Your task to perform on an android device: set the stopwatch Image 0: 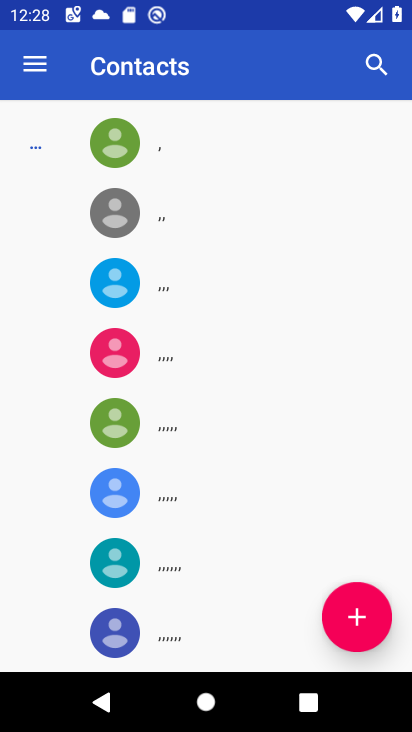
Step 0: press home button
Your task to perform on an android device: set the stopwatch Image 1: 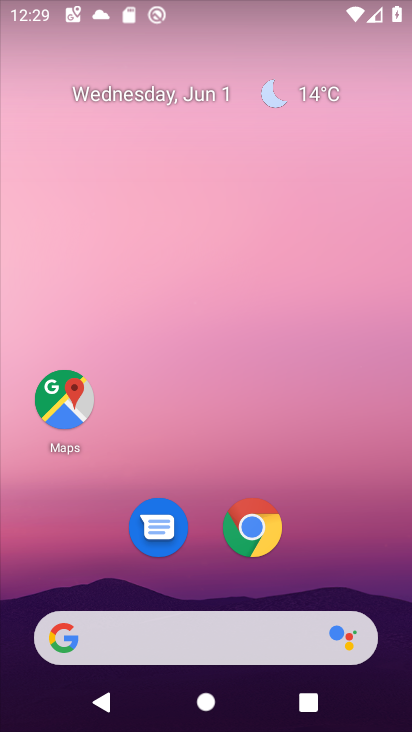
Step 1: drag from (343, 602) to (331, 60)
Your task to perform on an android device: set the stopwatch Image 2: 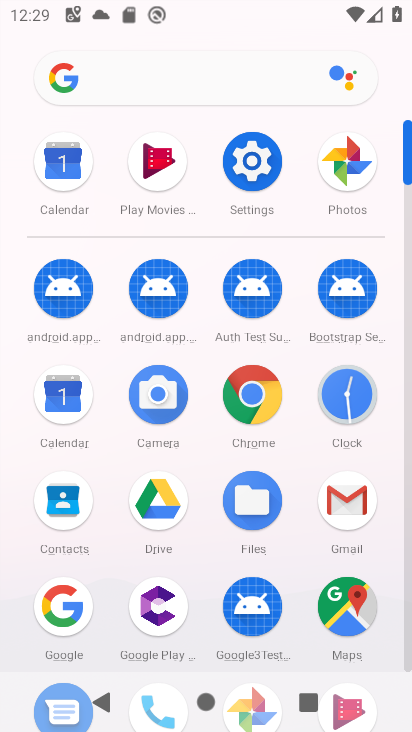
Step 2: click (347, 400)
Your task to perform on an android device: set the stopwatch Image 3: 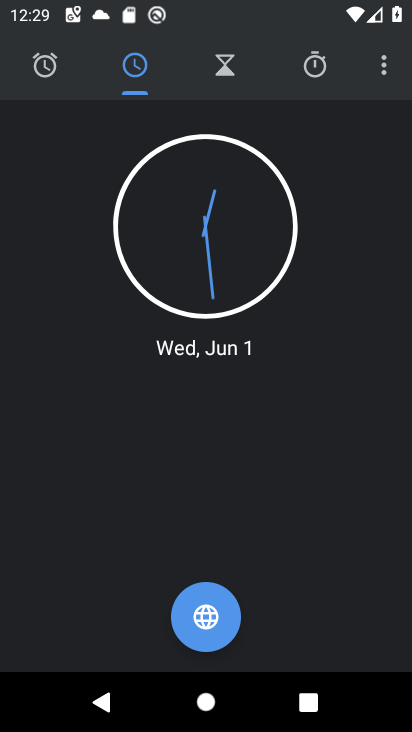
Step 3: click (320, 66)
Your task to perform on an android device: set the stopwatch Image 4: 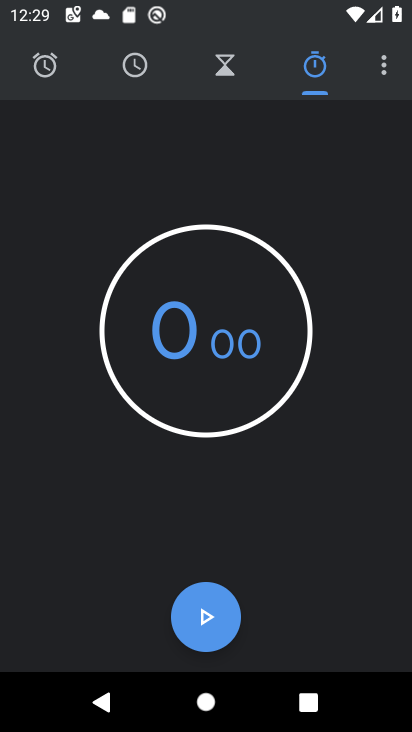
Step 4: click (203, 630)
Your task to perform on an android device: set the stopwatch Image 5: 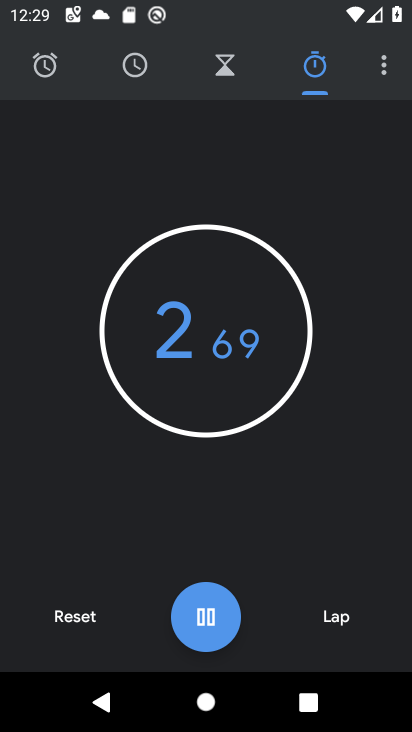
Step 5: click (203, 624)
Your task to perform on an android device: set the stopwatch Image 6: 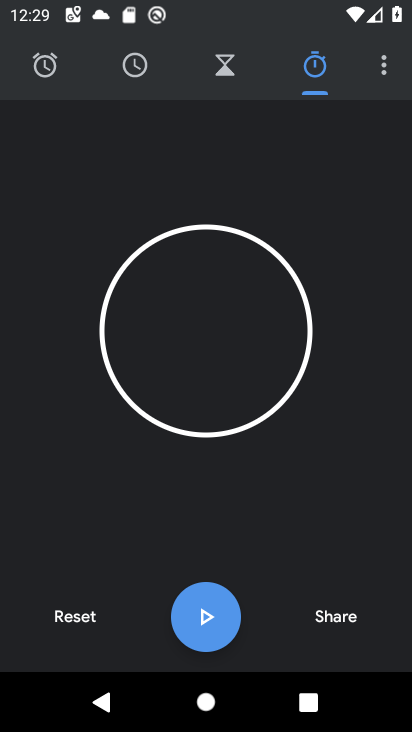
Step 6: task complete